Your task to perform on an android device: Go to settings Image 0: 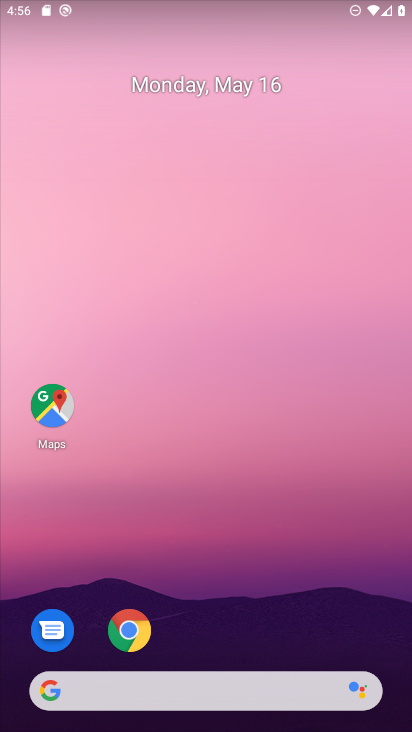
Step 0: press home button
Your task to perform on an android device: Go to settings Image 1: 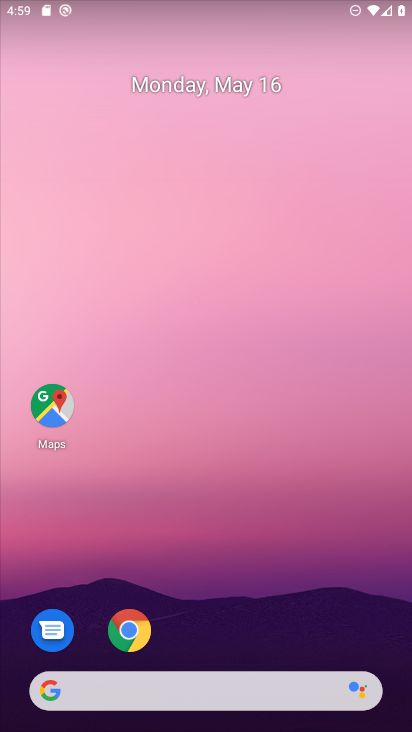
Step 1: drag from (315, 605) to (295, 217)
Your task to perform on an android device: Go to settings Image 2: 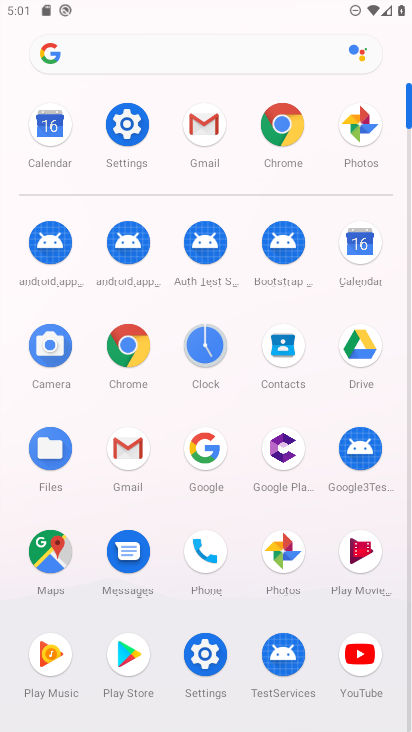
Step 2: click (116, 123)
Your task to perform on an android device: Go to settings Image 3: 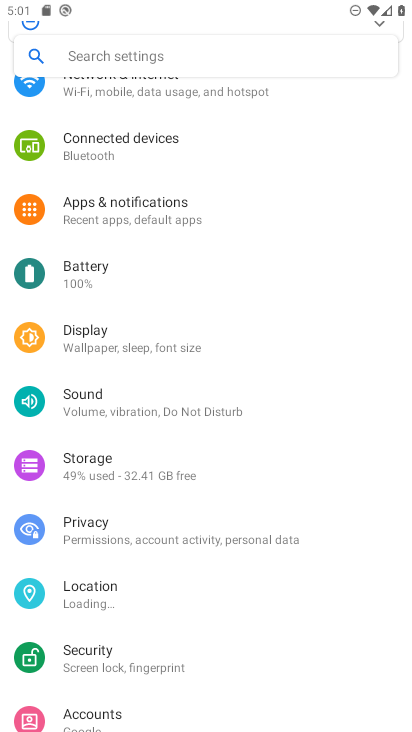
Step 3: task complete